Your task to perform on an android device: What's the weather today? Image 0: 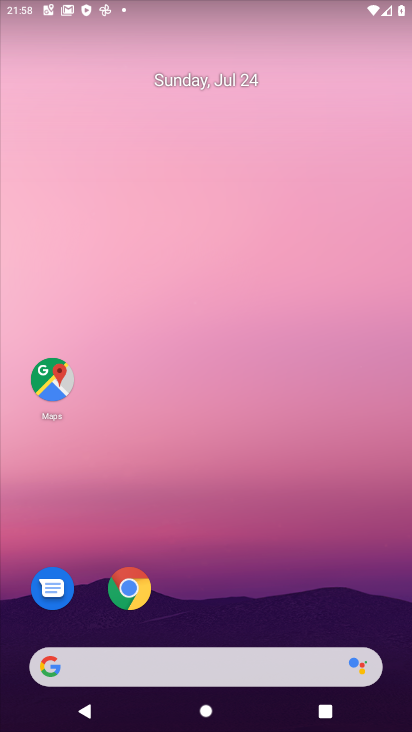
Step 0: click (128, 586)
Your task to perform on an android device: What's the weather today? Image 1: 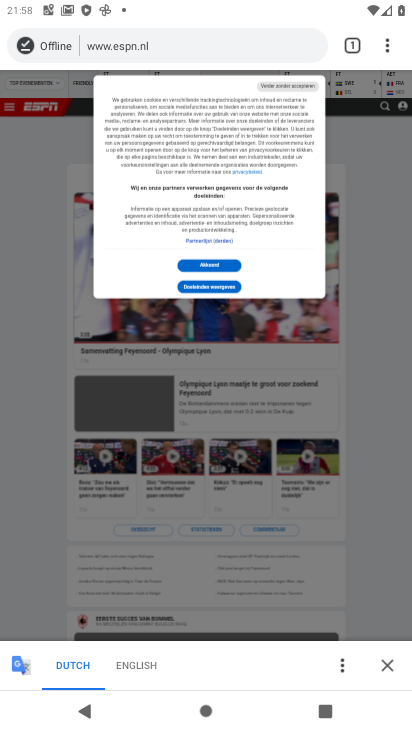
Step 1: click (178, 59)
Your task to perform on an android device: What's the weather today? Image 2: 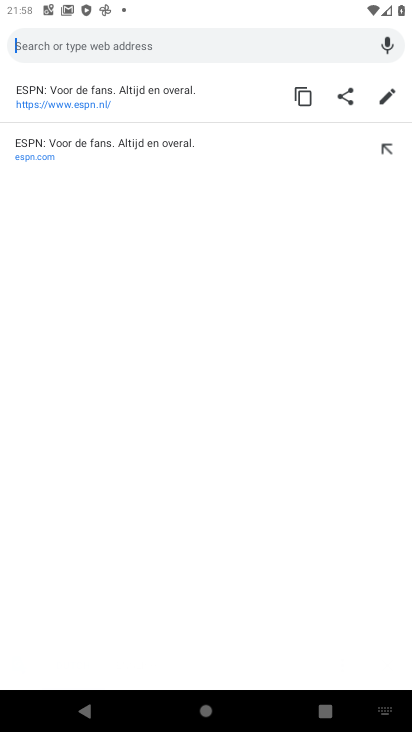
Step 2: type "weather today"
Your task to perform on an android device: What's the weather today? Image 3: 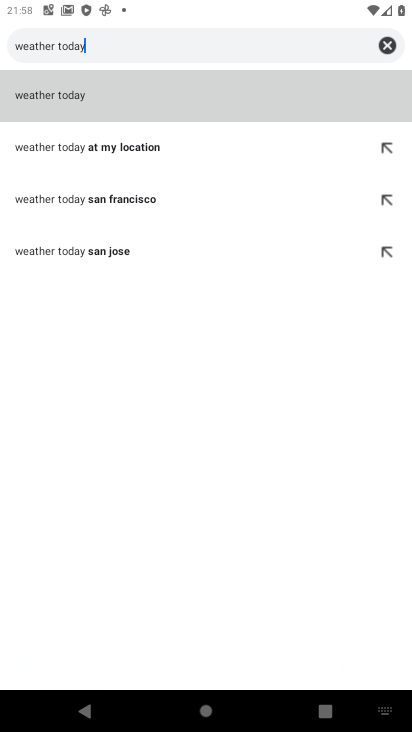
Step 3: click (51, 88)
Your task to perform on an android device: What's the weather today? Image 4: 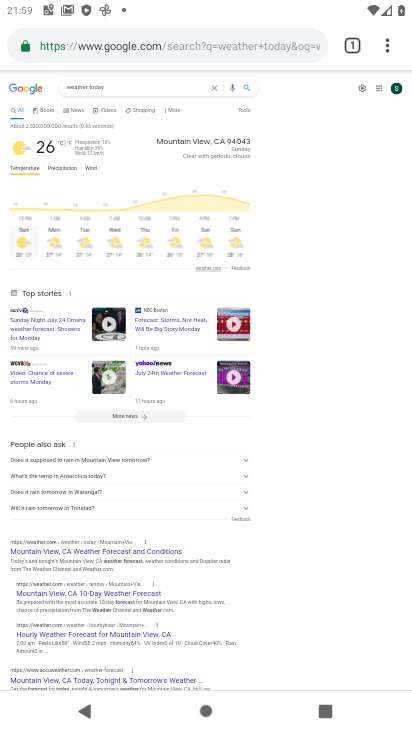
Step 4: task complete